Your task to perform on an android device: Open Maps and search for coffee Image 0: 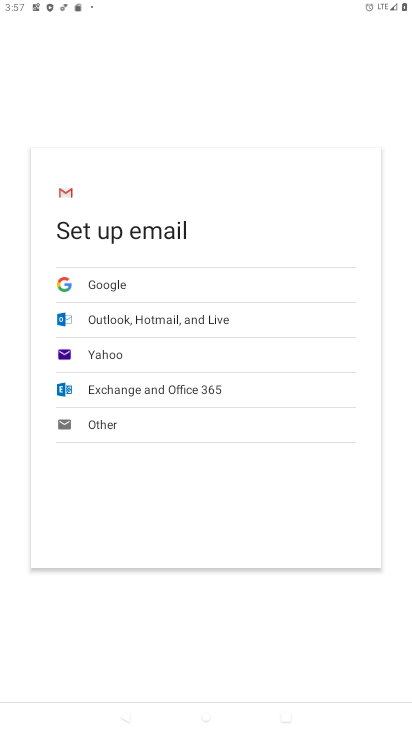
Step 0: press home button
Your task to perform on an android device: Open Maps and search for coffee Image 1: 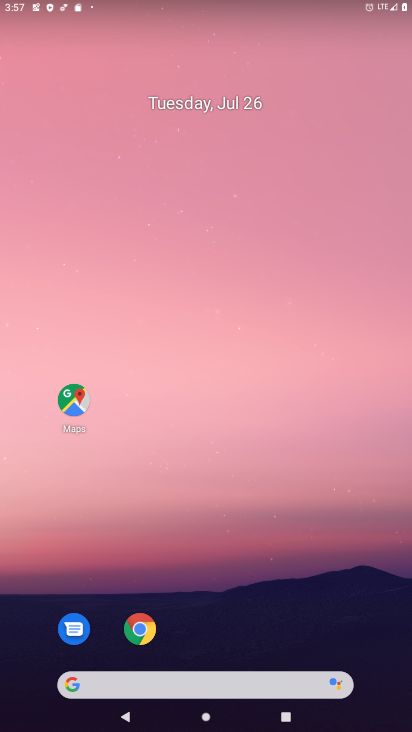
Step 1: drag from (232, 726) to (223, 290)
Your task to perform on an android device: Open Maps and search for coffee Image 2: 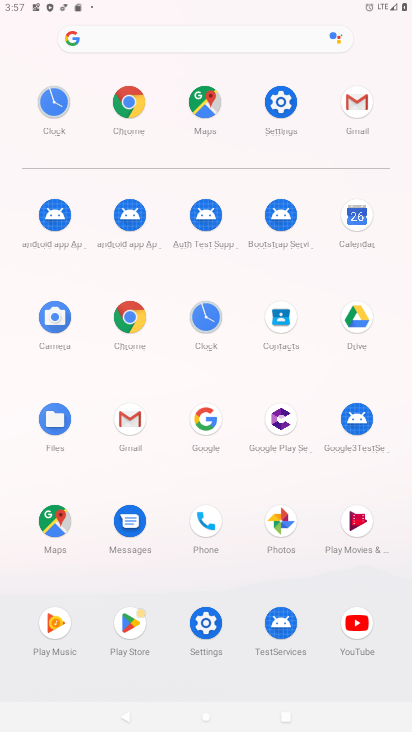
Step 2: click (50, 519)
Your task to perform on an android device: Open Maps and search for coffee Image 3: 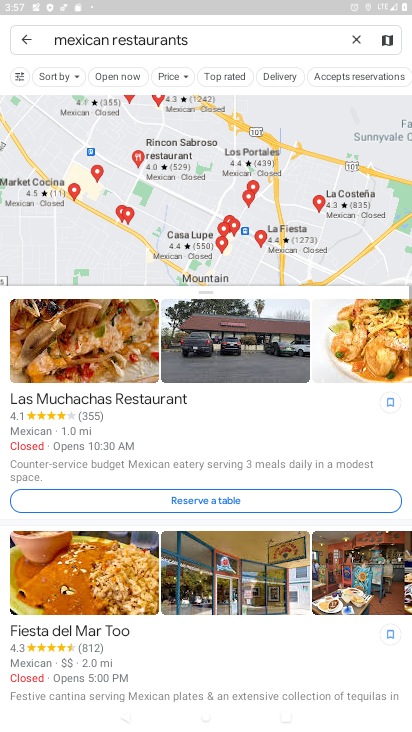
Step 3: click (358, 38)
Your task to perform on an android device: Open Maps and search for coffee Image 4: 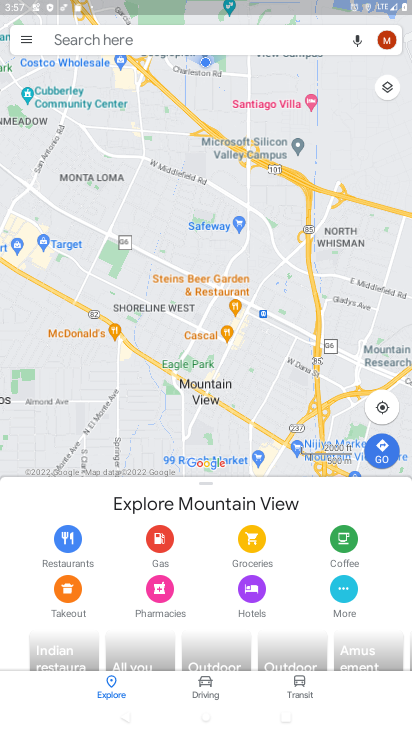
Step 4: click (224, 45)
Your task to perform on an android device: Open Maps and search for coffee Image 5: 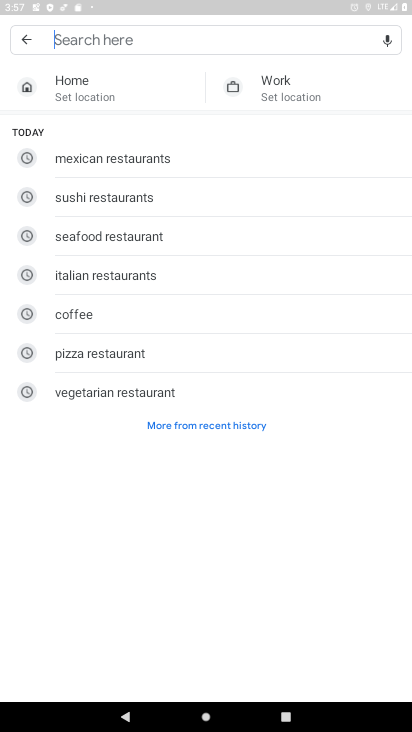
Step 5: type "coffee"
Your task to perform on an android device: Open Maps and search for coffee Image 6: 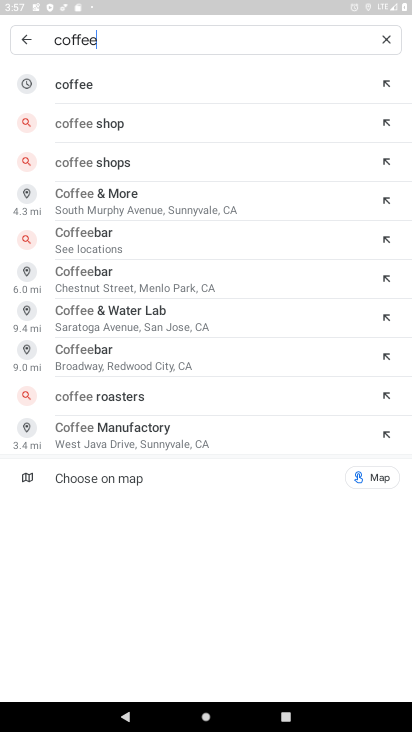
Step 6: click (68, 78)
Your task to perform on an android device: Open Maps and search for coffee Image 7: 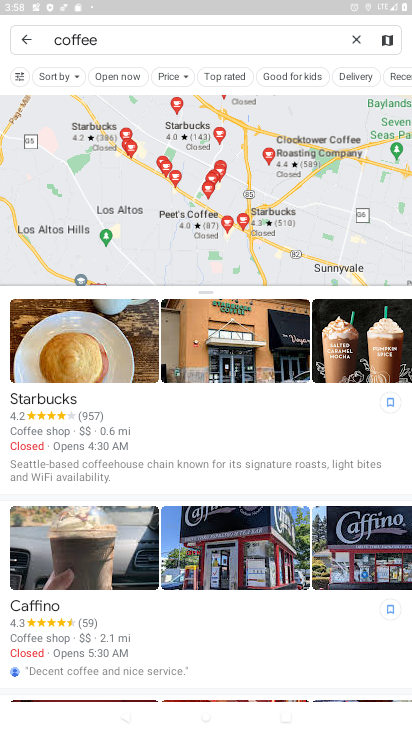
Step 7: task complete